Your task to perform on an android device: turn off location Image 0: 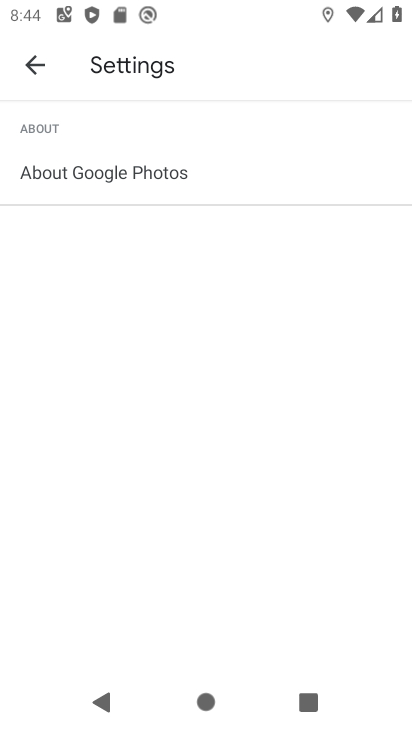
Step 0: press home button
Your task to perform on an android device: turn off location Image 1: 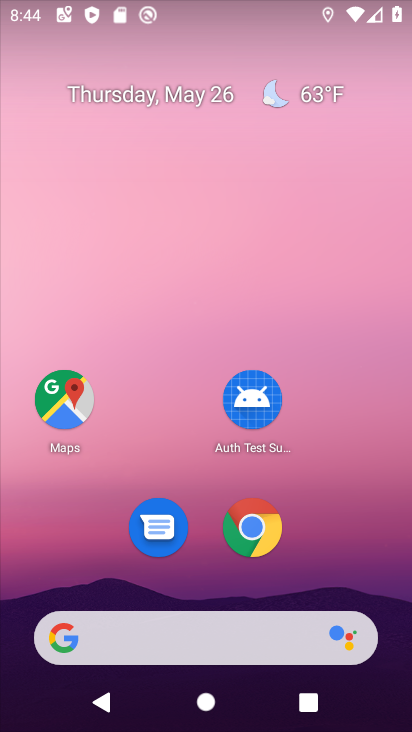
Step 1: drag from (361, 462) to (411, 390)
Your task to perform on an android device: turn off location Image 2: 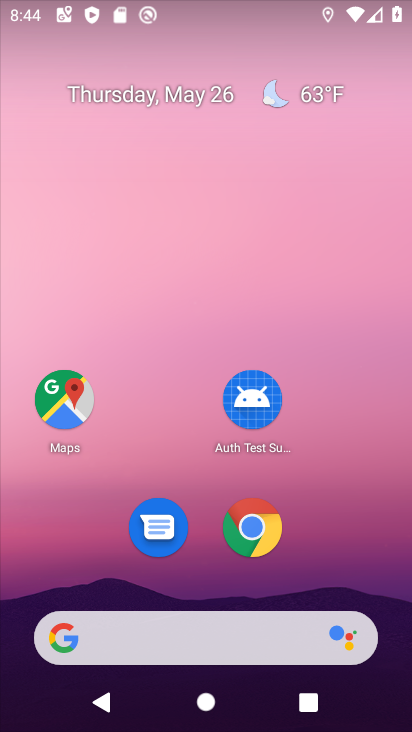
Step 2: drag from (365, 506) to (408, 101)
Your task to perform on an android device: turn off location Image 3: 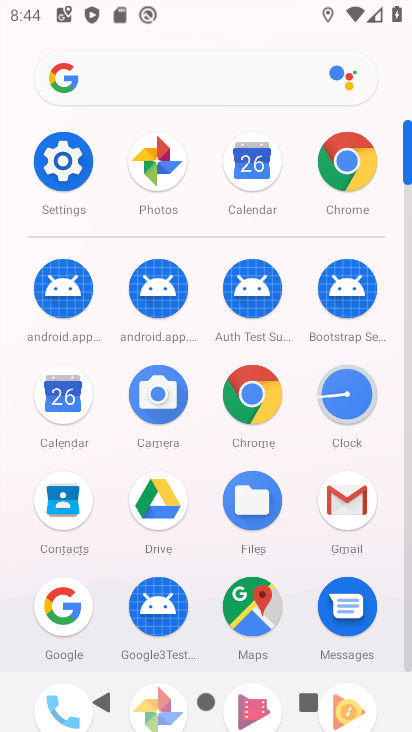
Step 3: click (70, 185)
Your task to perform on an android device: turn off location Image 4: 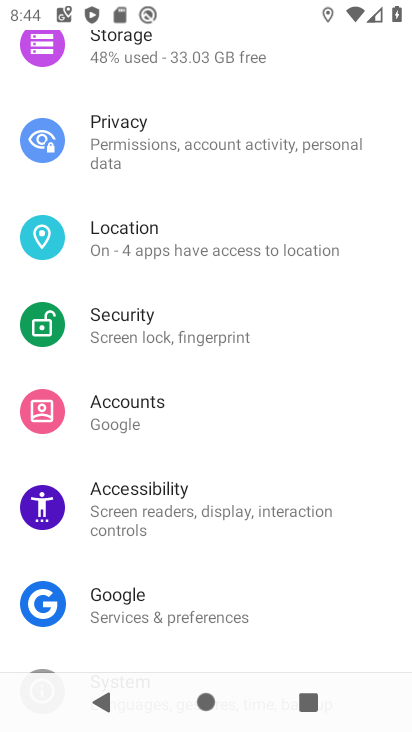
Step 4: click (129, 244)
Your task to perform on an android device: turn off location Image 5: 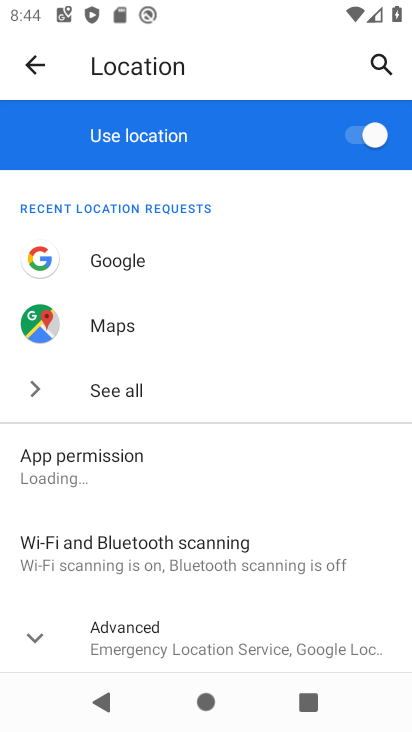
Step 5: click (356, 141)
Your task to perform on an android device: turn off location Image 6: 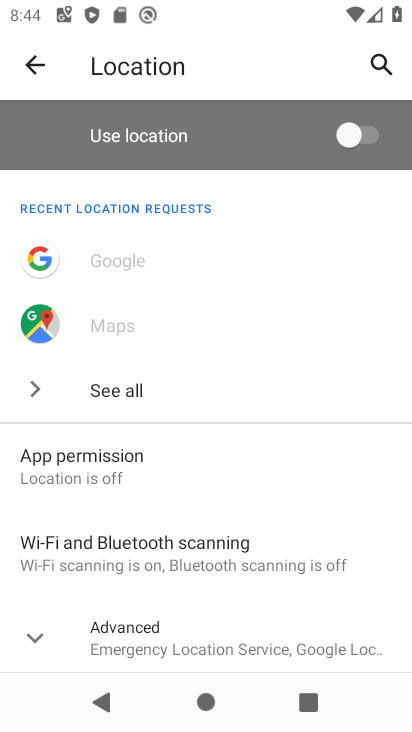
Step 6: task complete